Your task to perform on an android device: Empty the shopping cart on amazon. Image 0: 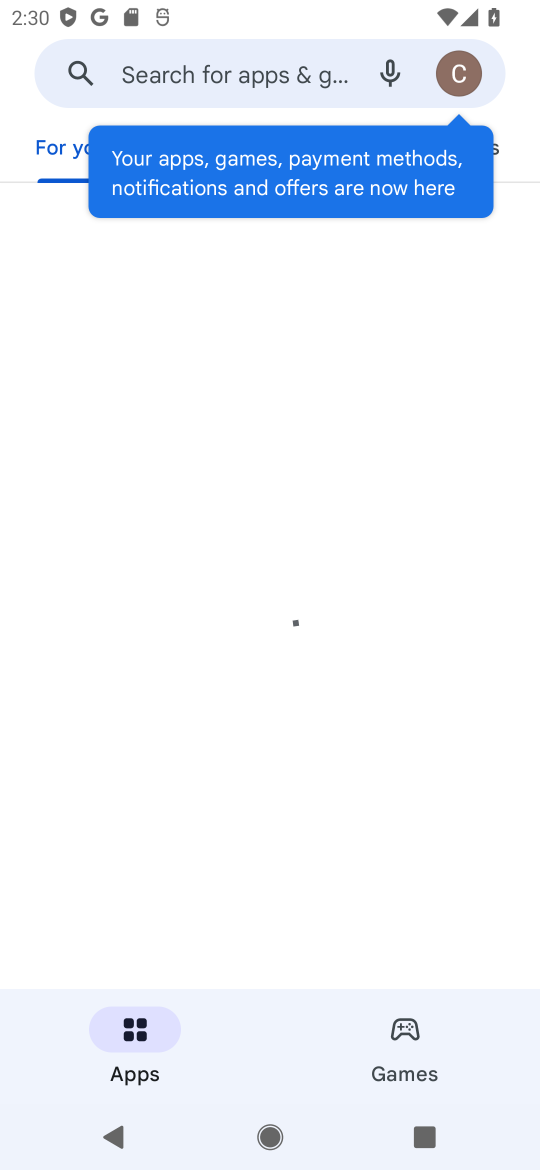
Step 0: press home button
Your task to perform on an android device: Empty the shopping cart on amazon. Image 1: 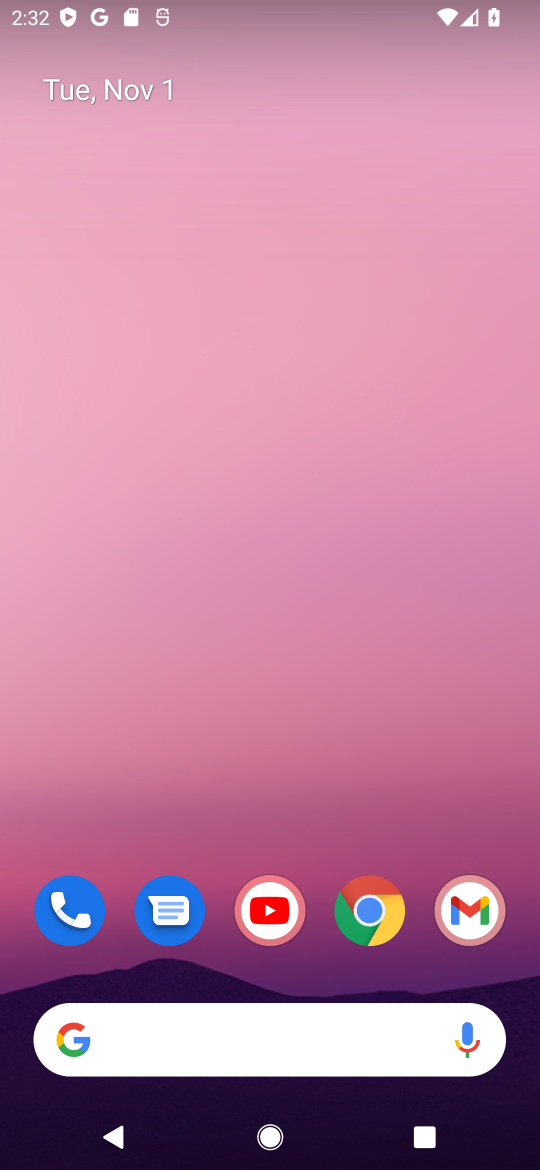
Step 1: click (263, 1045)
Your task to perform on an android device: Empty the shopping cart on amazon. Image 2: 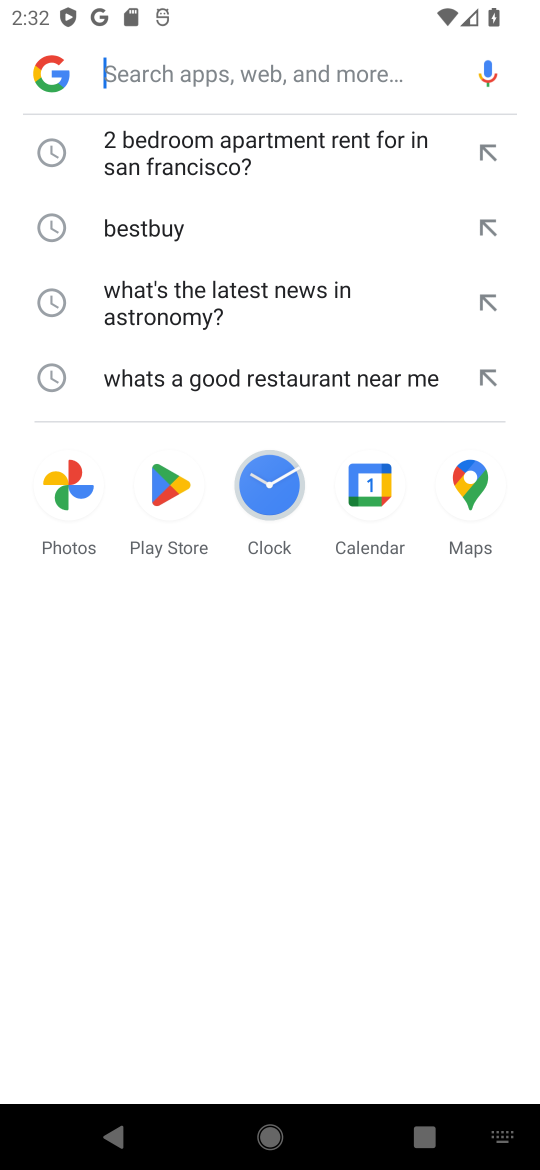
Step 2: type "amazon.com"
Your task to perform on an android device: Empty the shopping cart on amazon. Image 3: 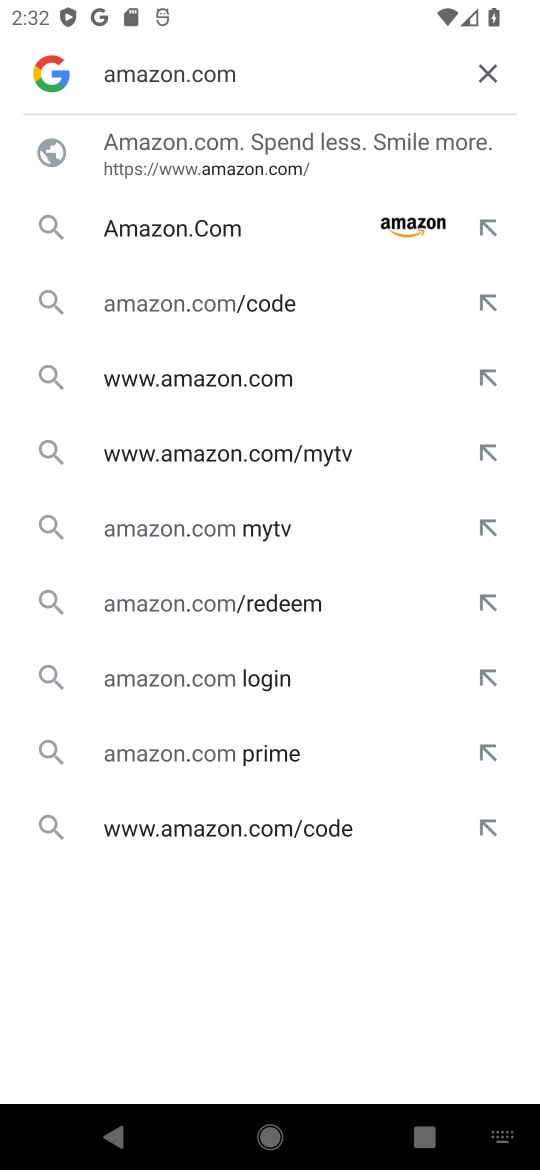
Step 3: click (265, 217)
Your task to perform on an android device: Empty the shopping cart on amazon. Image 4: 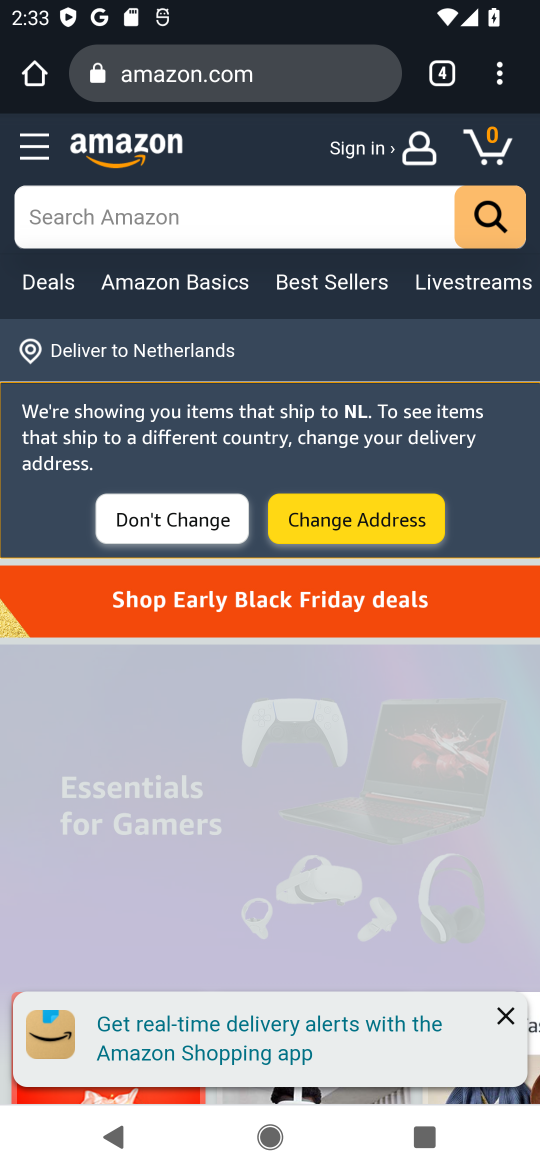
Step 4: click (486, 137)
Your task to perform on an android device: Empty the shopping cart on amazon. Image 5: 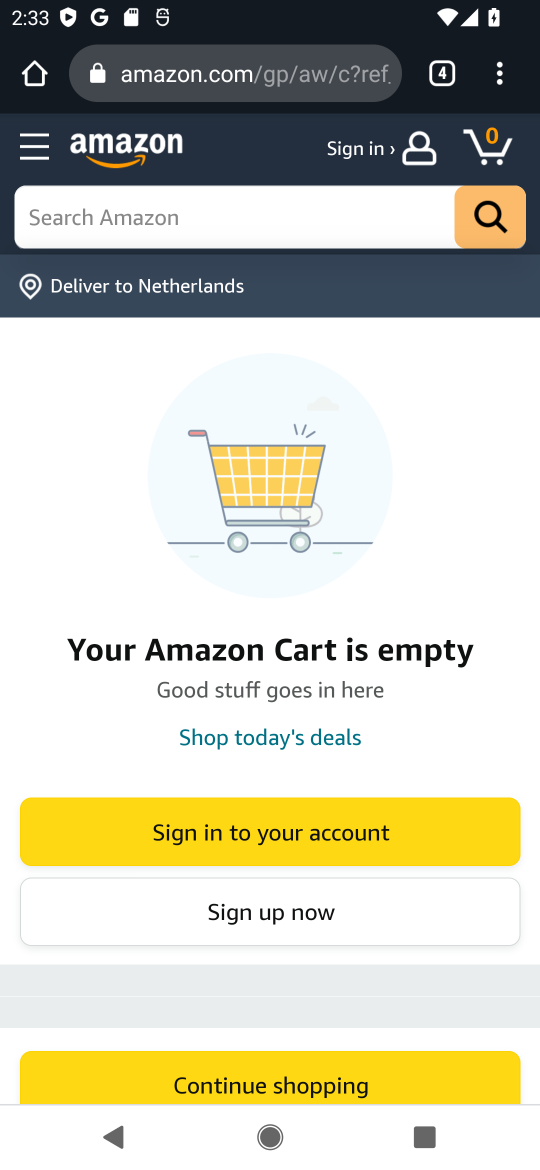
Step 5: task complete